Your task to perform on an android device: Open Youtube and go to "Your channel" Image 0: 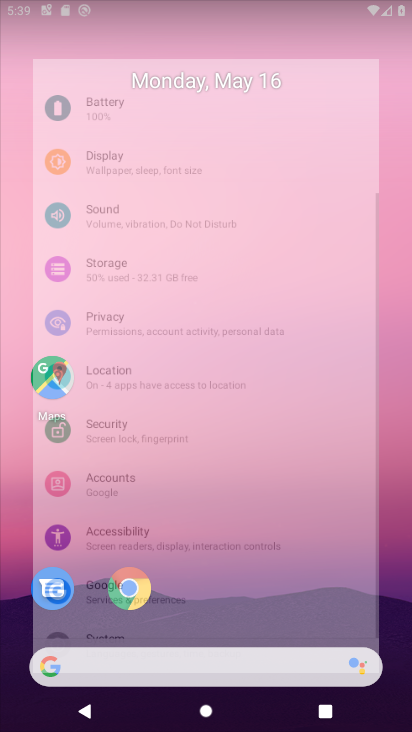
Step 0: drag from (234, 558) to (209, 6)
Your task to perform on an android device: Open Youtube and go to "Your channel" Image 1: 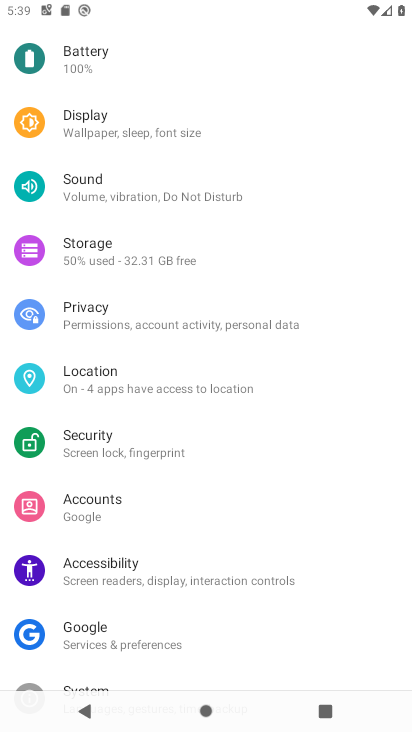
Step 1: press home button
Your task to perform on an android device: Open Youtube and go to "Your channel" Image 2: 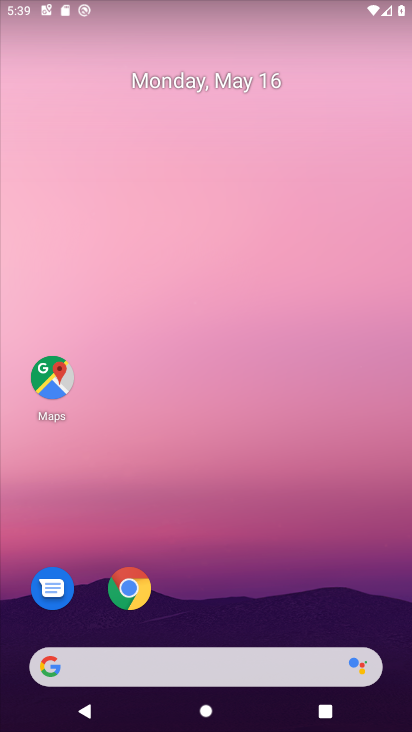
Step 2: drag from (265, 527) to (210, 74)
Your task to perform on an android device: Open Youtube and go to "Your channel" Image 3: 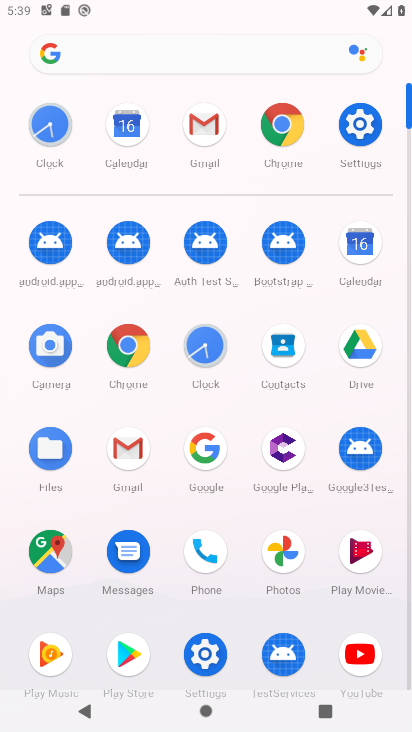
Step 3: click (357, 650)
Your task to perform on an android device: Open Youtube and go to "Your channel" Image 4: 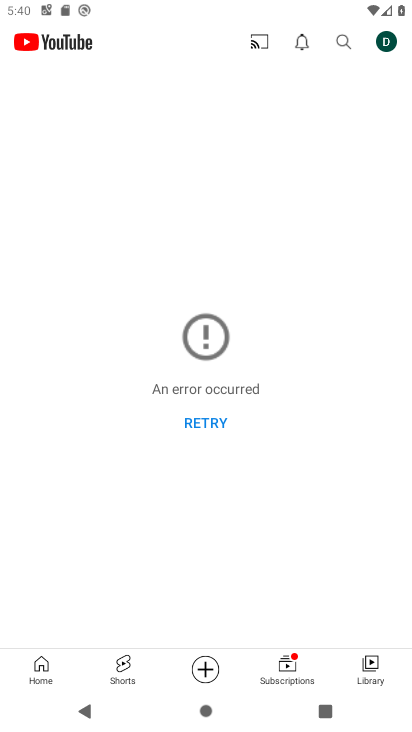
Step 4: click (387, 34)
Your task to perform on an android device: Open Youtube and go to "Your channel" Image 5: 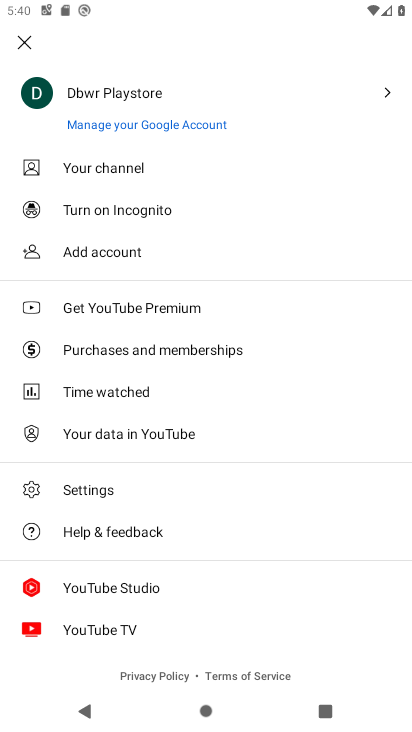
Step 5: click (95, 158)
Your task to perform on an android device: Open Youtube and go to "Your channel" Image 6: 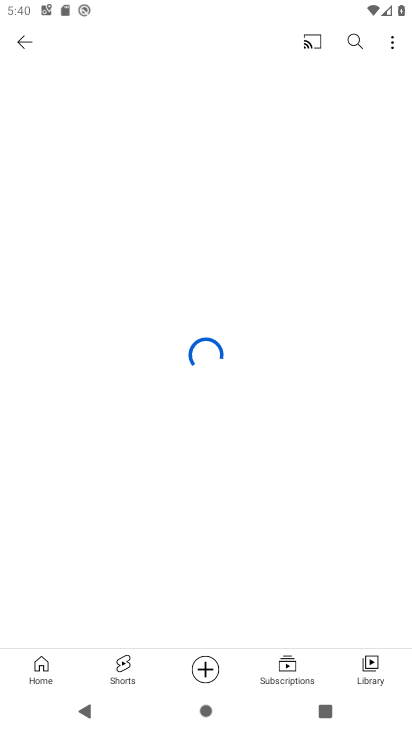
Step 6: task complete